Your task to perform on an android device: Search for Mexican restaurants on Maps Image 0: 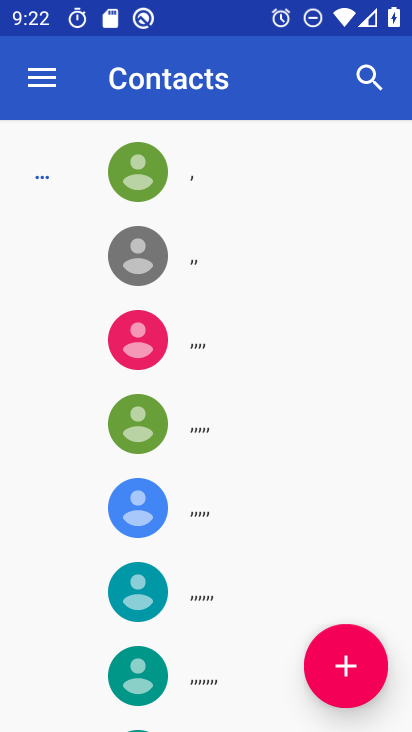
Step 0: press home button
Your task to perform on an android device: Search for Mexican restaurants on Maps Image 1: 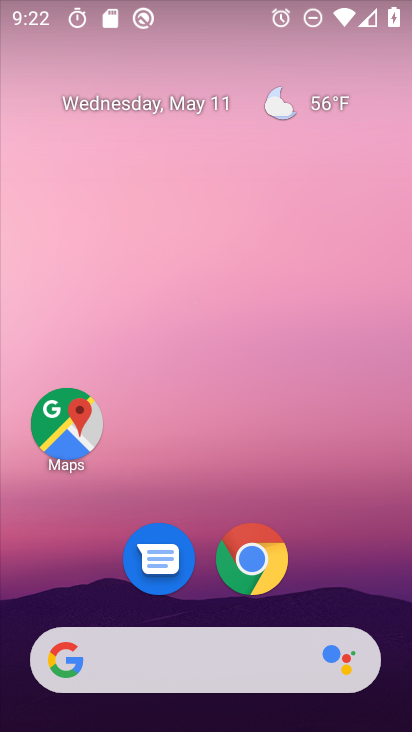
Step 1: click (108, 429)
Your task to perform on an android device: Search for Mexican restaurants on Maps Image 2: 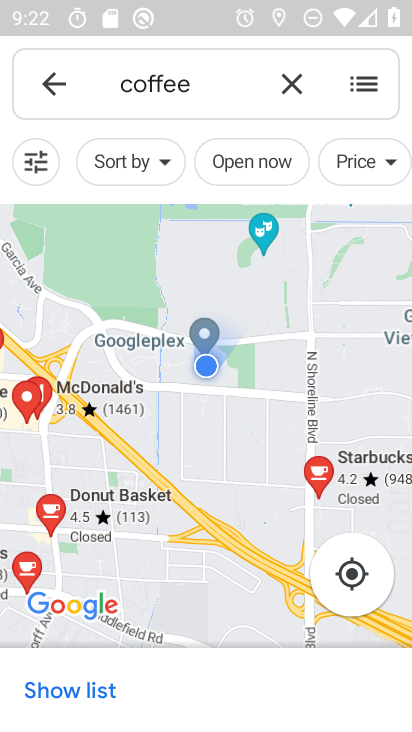
Step 2: click (295, 87)
Your task to perform on an android device: Search for Mexican restaurants on Maps Image 3: 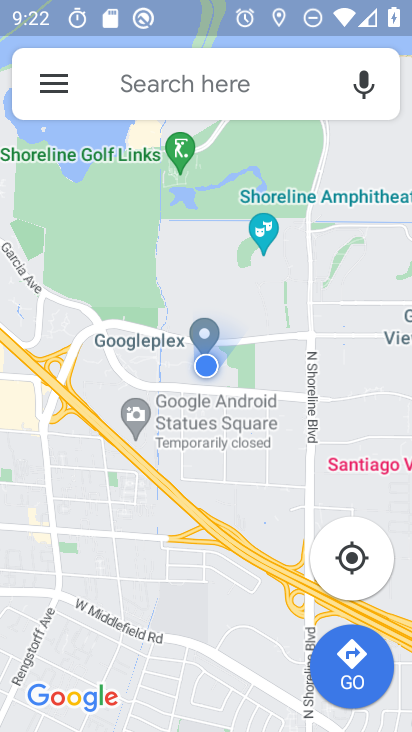
Step 3: click (196, 94)
Your task to perform on an android device: Search for Mexican restaurants on Maps Image 4: 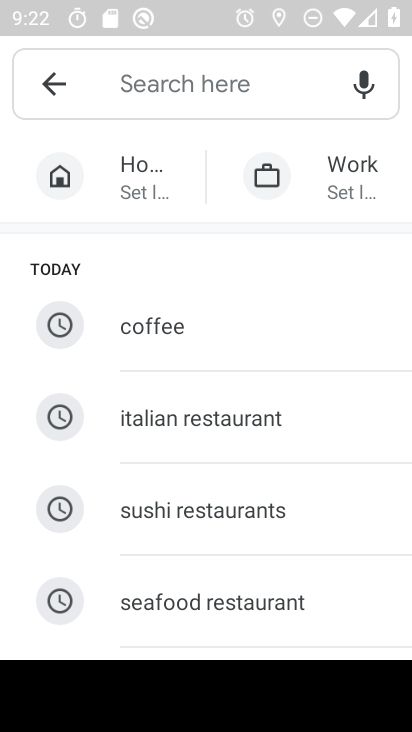
Step 4: type "Mexican Resaurants"
Your task to perform on an android device: Search for Mexican restaurants on Maps Image 5: 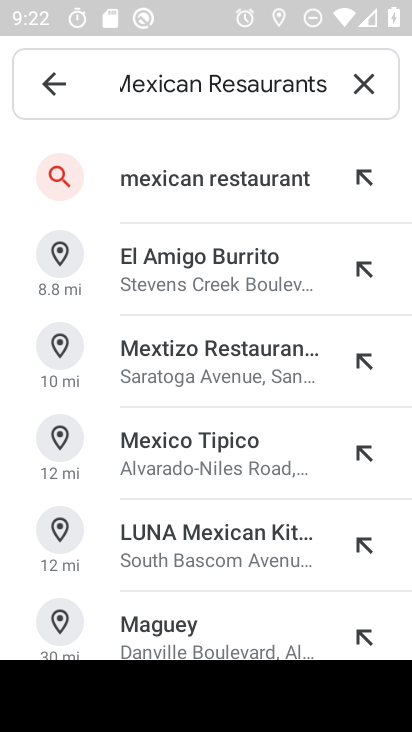
Step 5: click (246, 182)
Your task to perform on an android device: Search for Mexican restaurants on Maps Image 6: 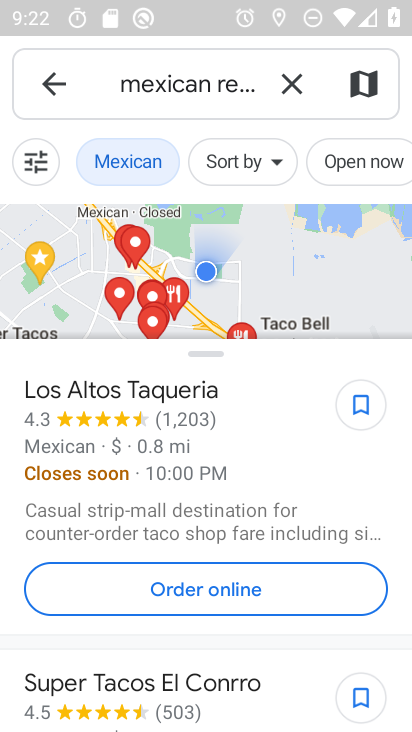
Step 6: task complete